Your task to perform on an android device: open app "Lyft - Rideshare, Bikes, Scooters & Transit" Image 0: 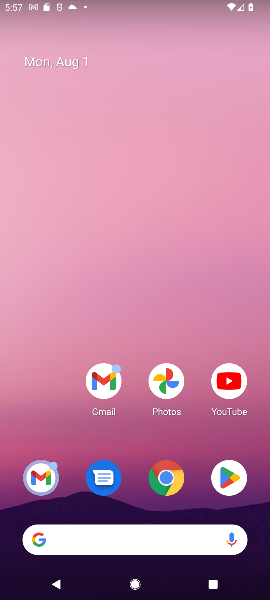
Step 0: press home button
Your task to perform on an android device: open app "Lyft - Rideshare, Bikes, Scooters & Transit" Image 1: 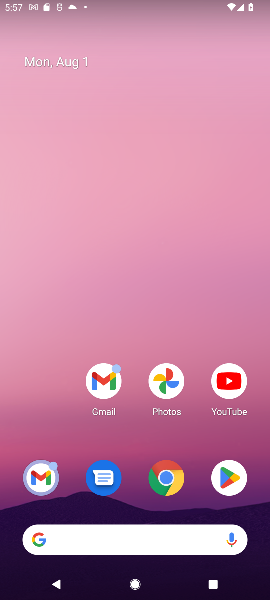
Step 1: click (214, 468)
Your task to perform on an android device: open app "Lyft - Rideshare, Bikes, Scooters & Transit" Image 2: 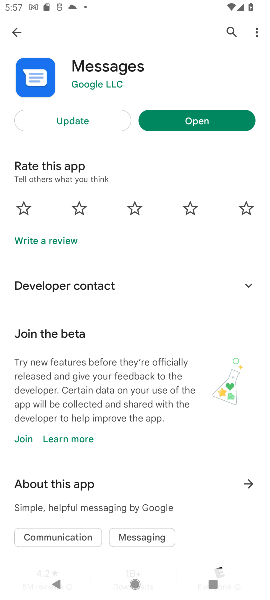
Step 2: click (230, 27)
Your task to perform on an android device: open app "Lyft - Rideshare, Bikes, Scooters & Transit" Image 3: 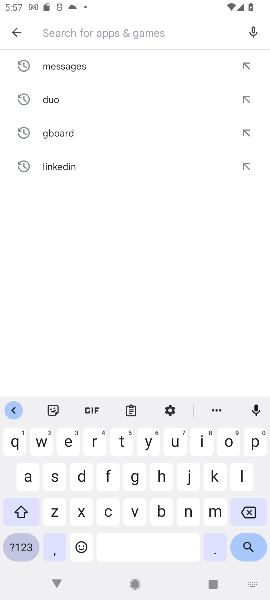
Step 3: click (240, 474)
Your task to perform on an android device: open app "Lyft - Rideshare, Bikes, Scooters & Transit" Image 4: 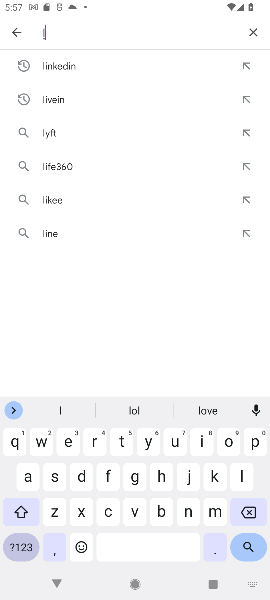
Step 4: click (148, 445)
Your task to perform on an android device: open app "Lyft - Rideshare, Bikes, Scooters & Transit" Image 5: 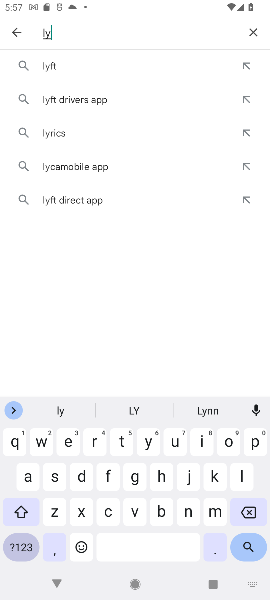
Step 5: click (57, 68)
Your task to perform on an android device: open app "Lyft - Rideshare, Bikes, Scooters & Transit" Image 6: 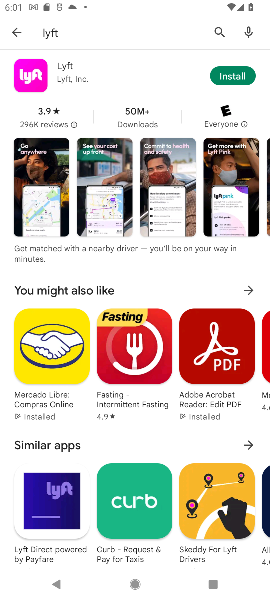
Step 6: task complete